Your task to perform on an android device: open the mobile data screen to see how much data has been used Image 0: 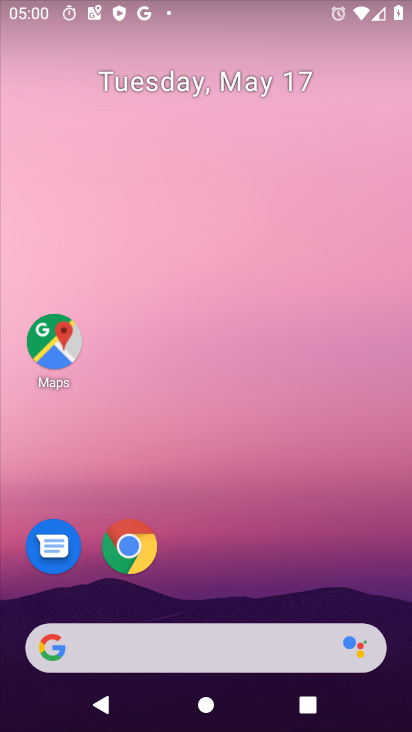
Step 0: drag from (402, 665) to (370, 326)
Your task to perform on an android device: open the mobile data screen to see how much data has been used Image 1: 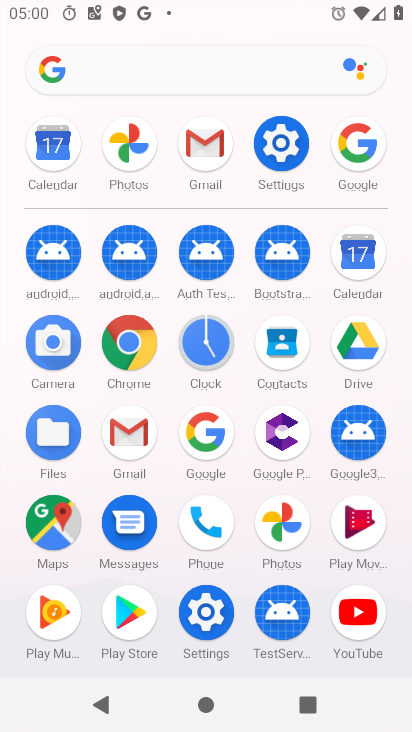
Step 1: click (290, 145)
Your task to perform on an android device: open the mobile data screen to see how much data has been used Image 2: 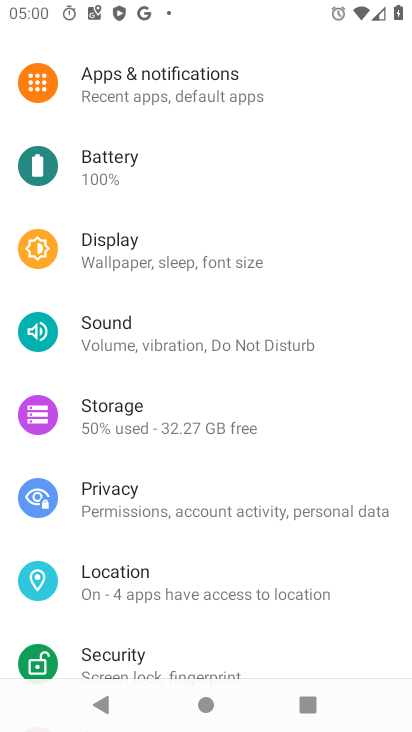
Step 2: drag from (386, 228) to (410, 420)
Your task to perform on an android device: open the mobile data screen to see how much data has been used Image 3: 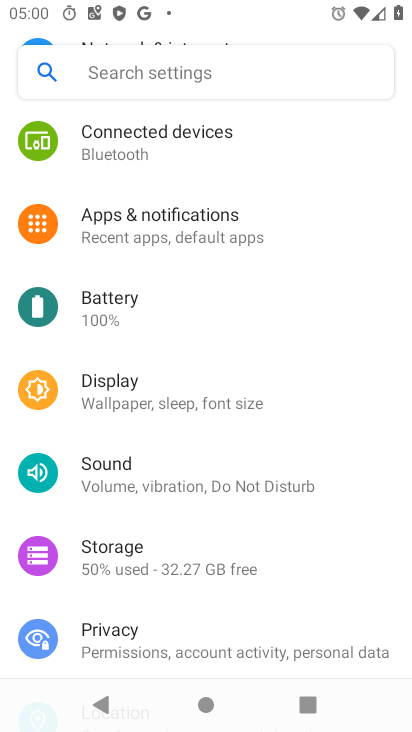
Step 3: drag from (347, 329) to (326, 534)
Your task to perform on an android device: open the mobile data screen to see how much data has been used Image 4: 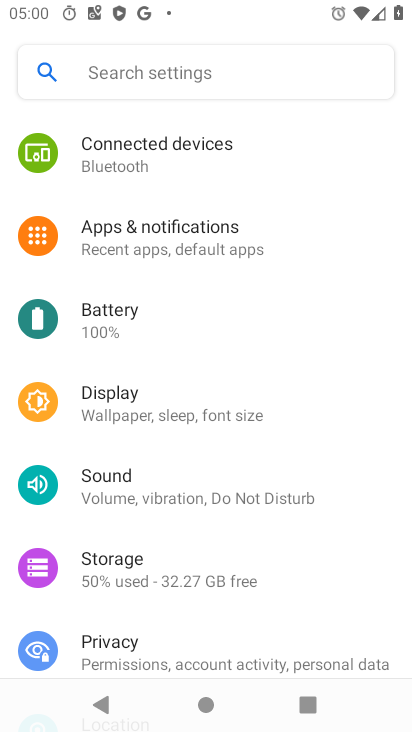
Step 4: drag from (366, 263) to (362, 497)
Your task to perform on an android device: open the mobile data screen to see how much data has been used Image 5: 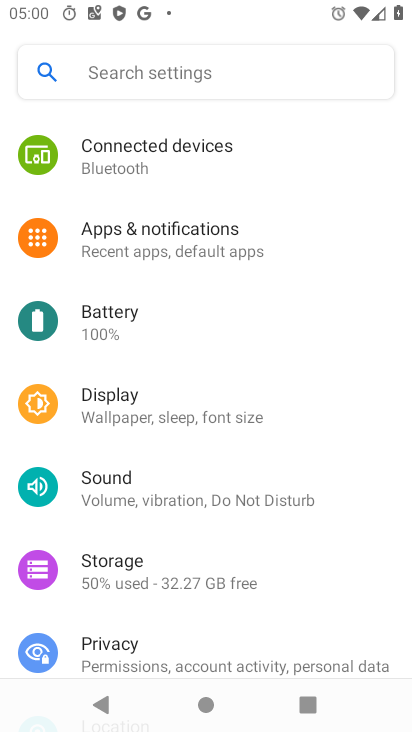
Step 5: drag from (364, 181) to (373, 432)
Your task to perform on an android device: open the mobile data screen to see how much data has been used Image 6: 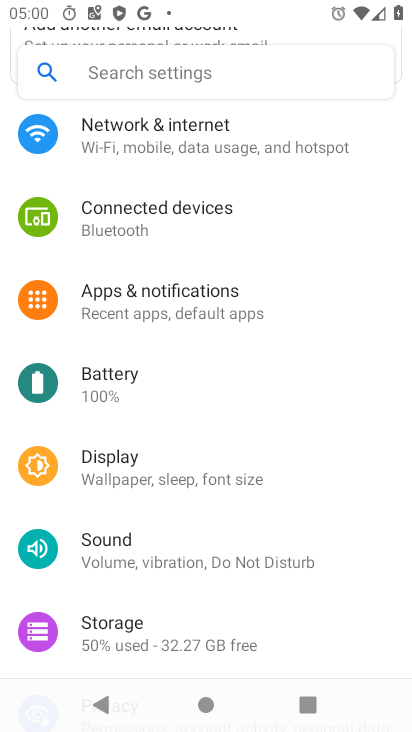
Step 6: drag from (364, 187) to (371, 558)
Your task to perform on an android device: open the mobile data screen to see how much data has been used Image 7: 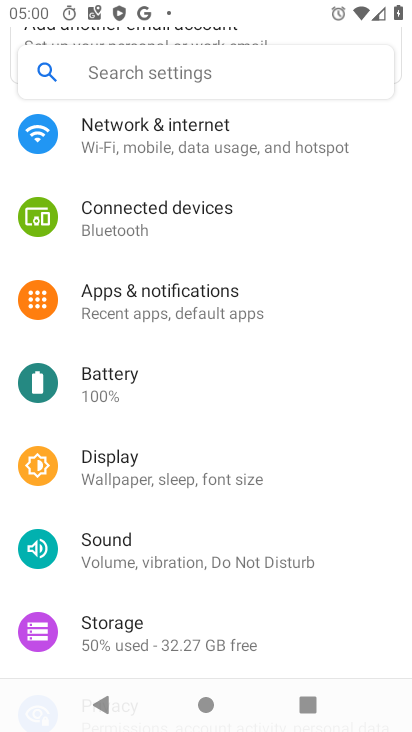
Step 7: click (163, 144)
Your task to perform on an android device: open the mobile data screen to see how much data has been used Image 8: 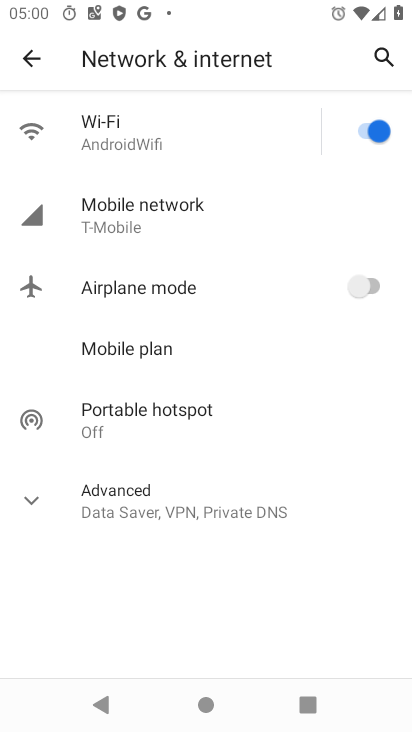
Step 8: click (113, 209)
Your task to perform on an android device: open the mobile data screen to see how much data has been used Image 9: 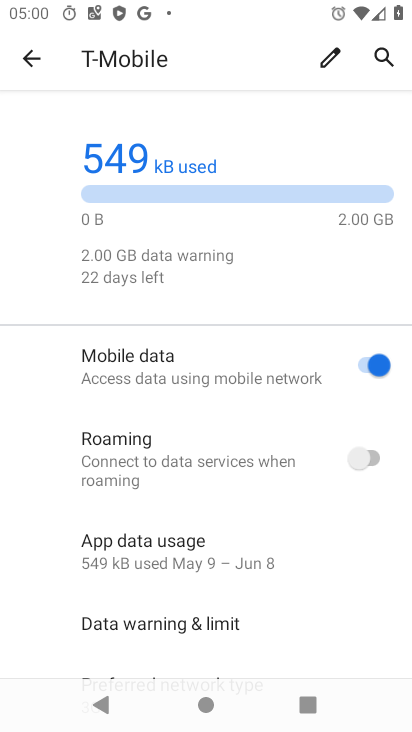
Step 9: task complete